Your task to perform on an android device: change the upload size in google photos Image 0: 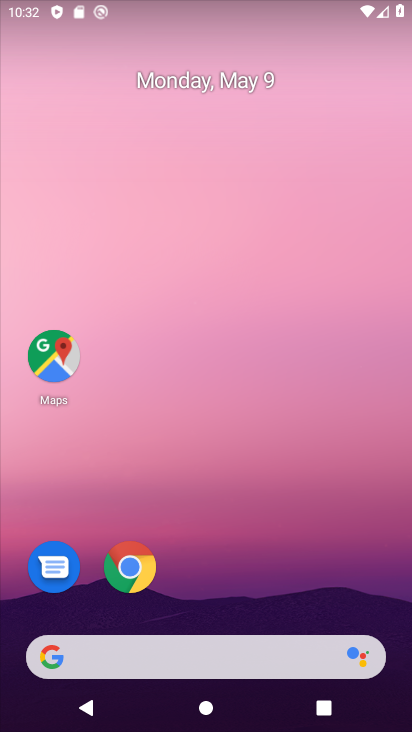
Step 0: drag from (342, 595) to (279, 38)
Your task to perform on an android device: change the upload size in google photos Image 1: 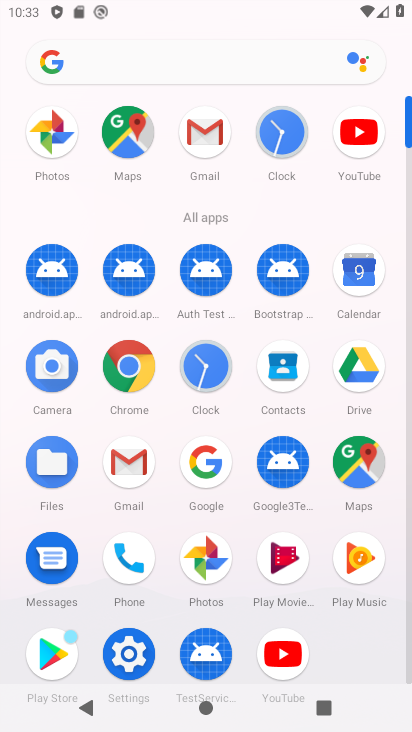
Step 1: click (214, 560)
Your task to perform on an android device: change the upload size in google photos Image 2: 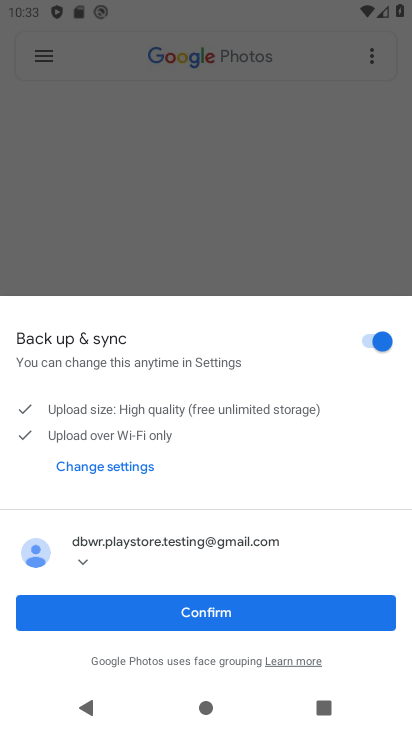
Step 2: click (286, 607)
Your task to perform on an android device: change the upload size in google photos Image 3: 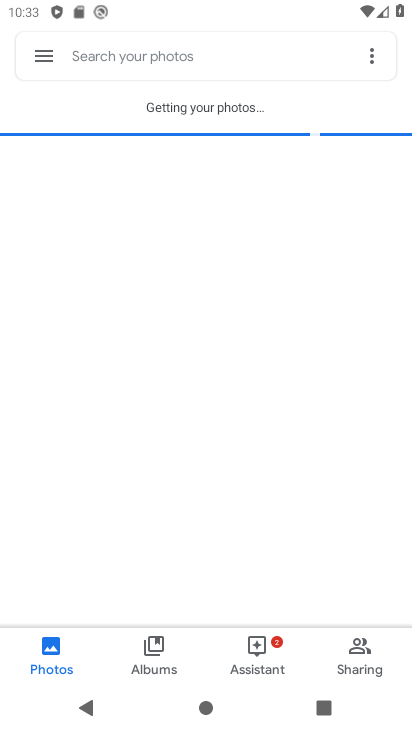
Step 3: click (41, 53)
Your task to perform on an android device: change the upload size in google photos Image 4: 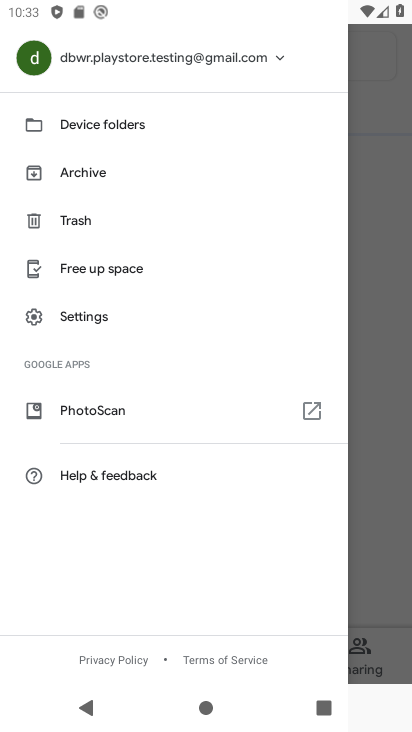
Step 4: click (101, 315)
Your task to perform on an android device: change the upload size in google photos Image 5: 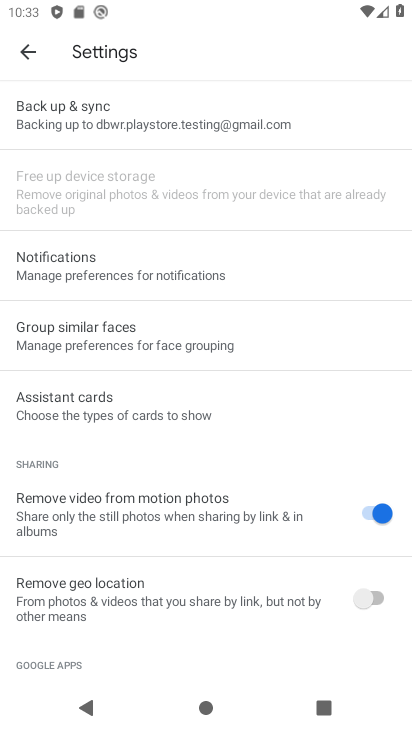
Step 5: click (136, 119)
Your task to perform on an android device: change the upload size in google photos Image 6: 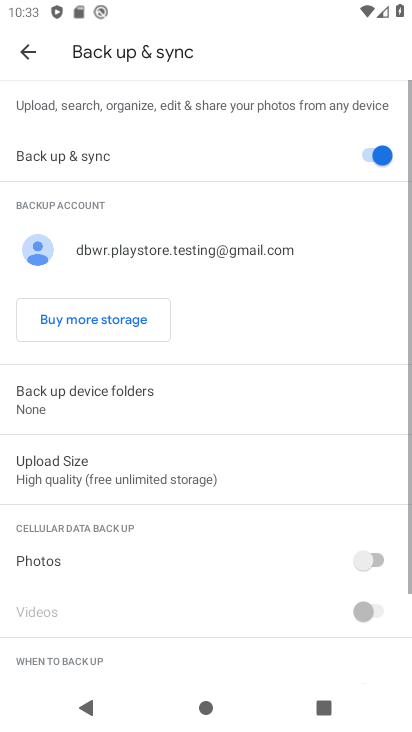
Step 6: click (141, 467)
Your task to perform on an android device: change the upload size in google photos Image 7: 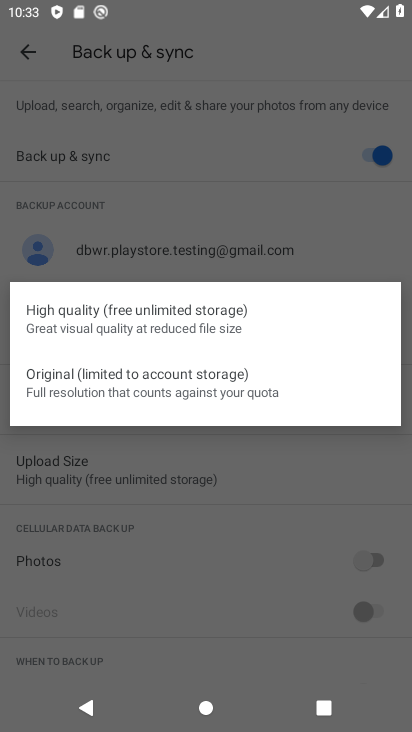
Step 7: click (145, 377)
Your task to perform on an android device: change the upload size in google photos Image 8: 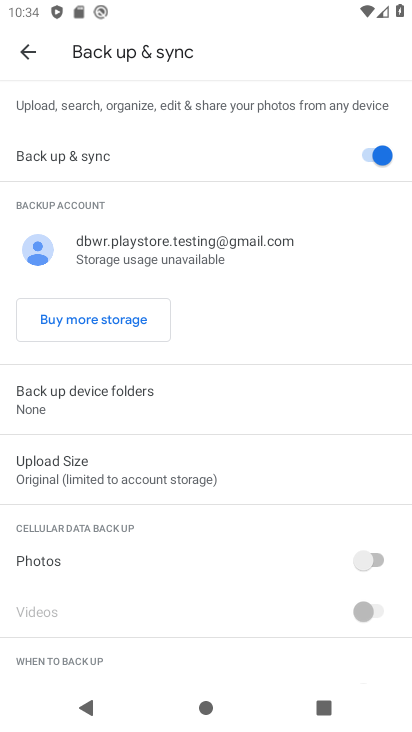
Step 8: task complete